Your task to perform on an android device: Open Google Maps Image 0: 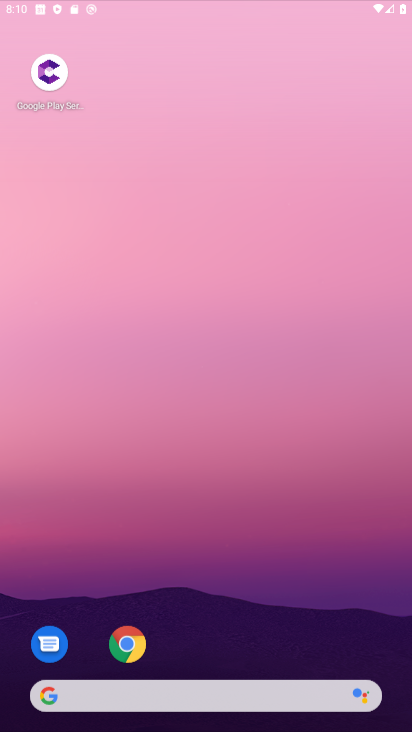
Step 0: click (294, 87)
Your task to perform on an android device: Open Google Maps Image 1: 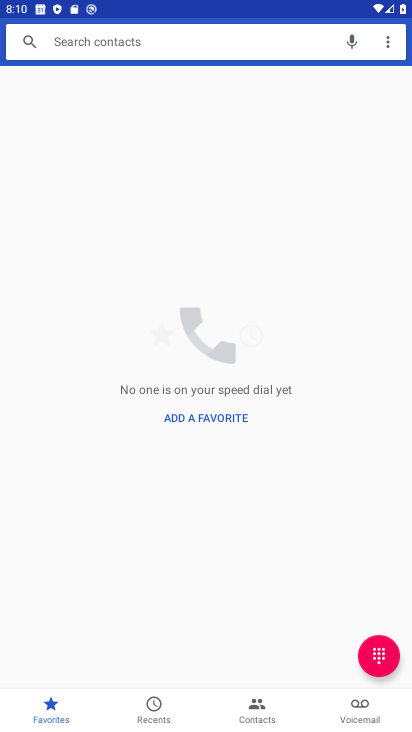
Step 1: drag from (157, 621) to (367, 46)
Your task to perform on an android device: Open Google Maps Image 2: 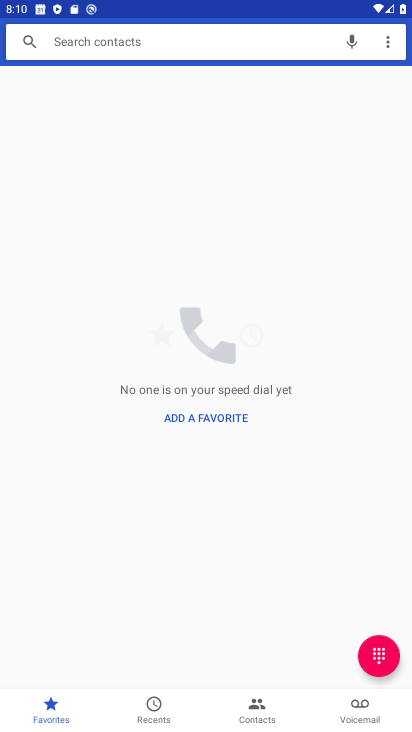
Step 2: press home button
Your task to perform on an android device: Open Google Maps Image 3: 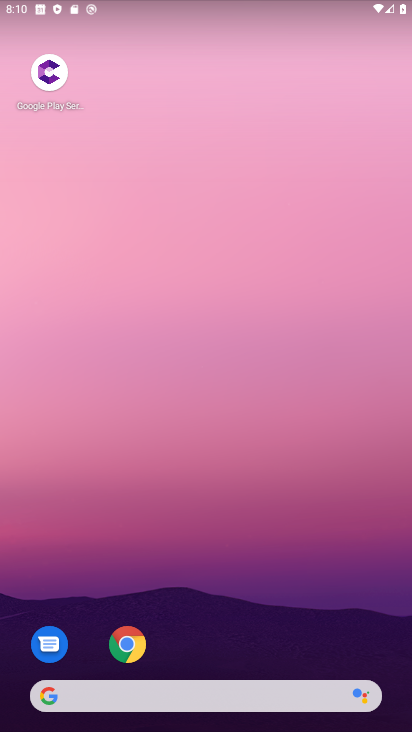
Step 3: drag from (170, 668) to (282, 41)
Your task to perform on an android device: Open Google Maps Image 4: 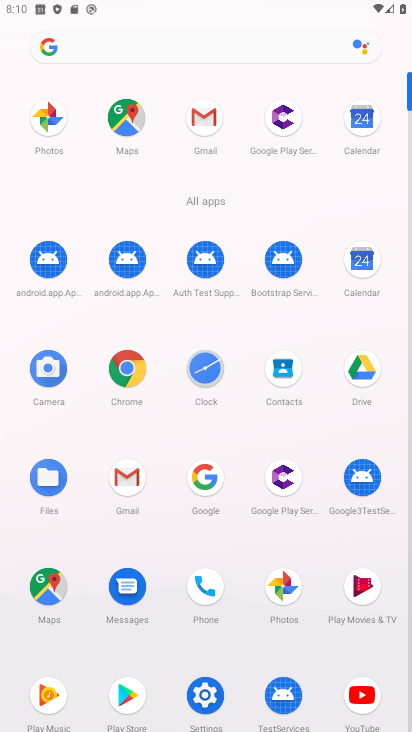
Step 4: click (118, 121)
Your task to perform on an android device: Open Google Maps Image 5: 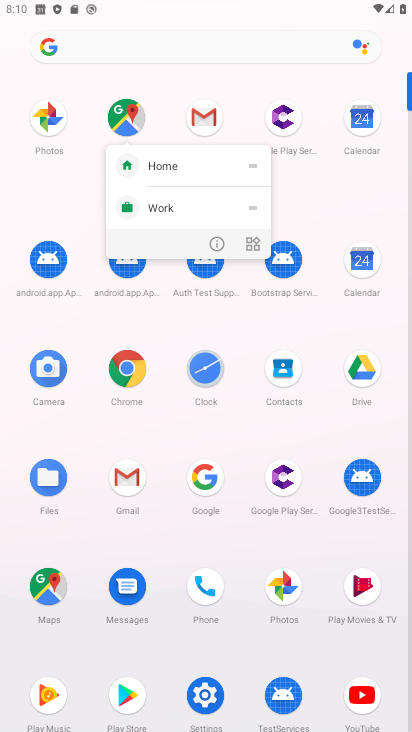
Step 5: click (218, 237)
Your task to perform on an android device: Open Google Maps Image 6: 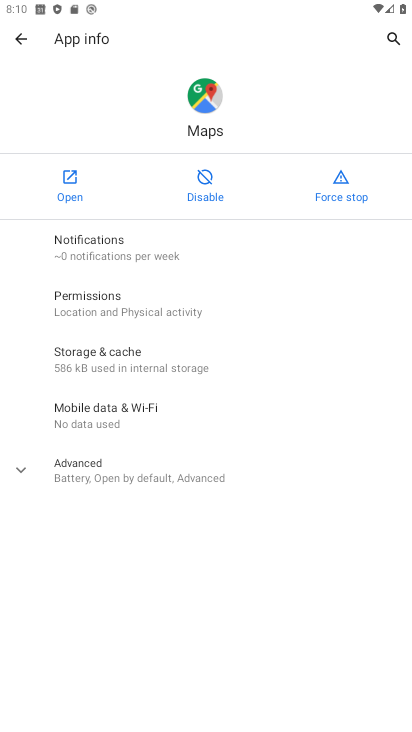
Step 6: click (67, 183)
Your task to perform on an android device: Open Google Maps Image 7: 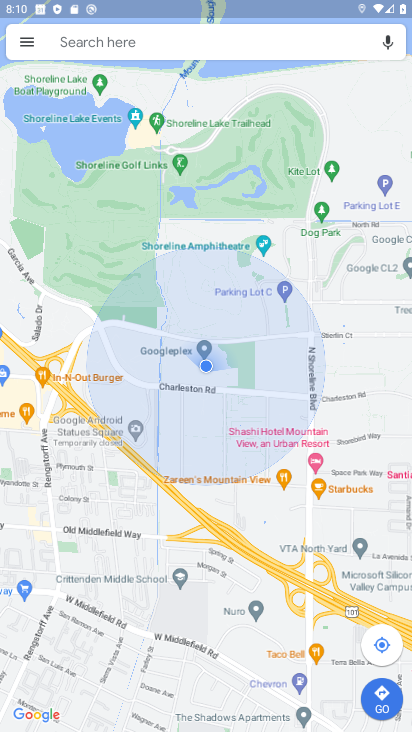
Step 7: task complete